Your task to perform on an android device: Open Google Image 0: 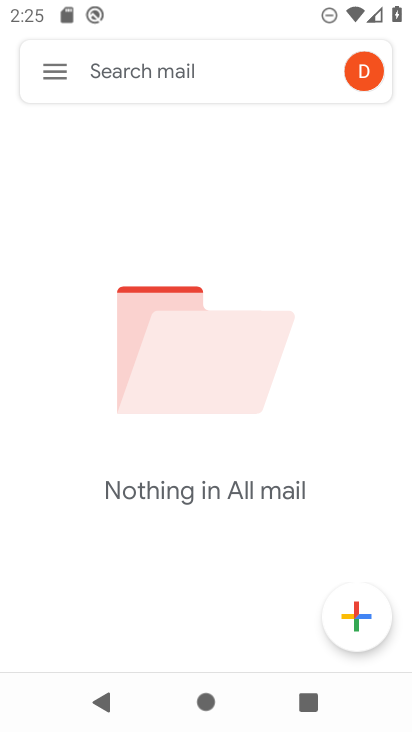
Step 0: press home button
Your task to perform on an android device: Open Google Image 1: 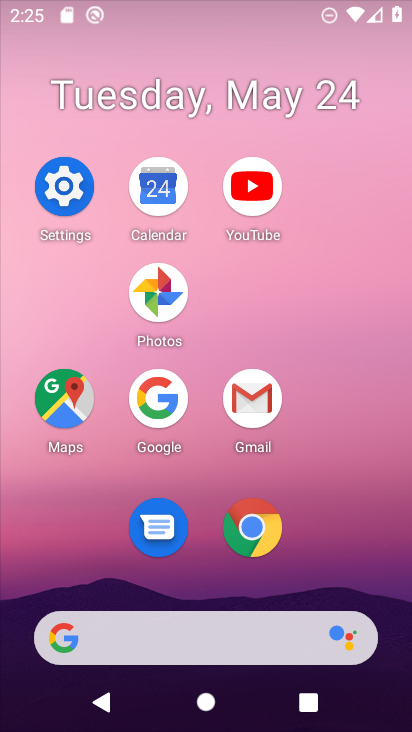
Step 1: click (181, 390)
Your task to perform on an android device: Open Google Image 2: 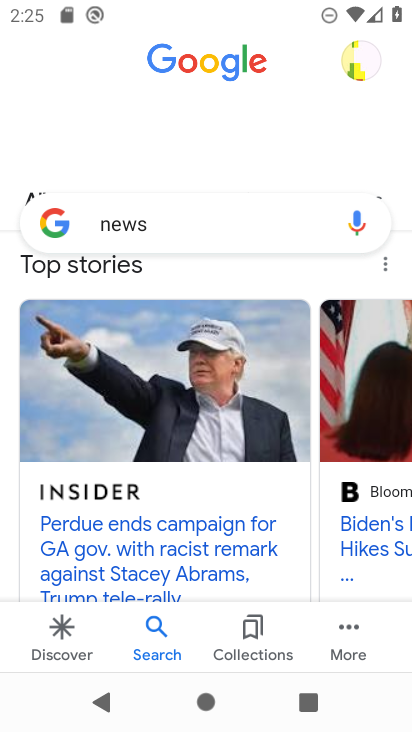
Step 2: task complete